Your task to perform on an android device: make emails show in primary in the gmail app Image 0: 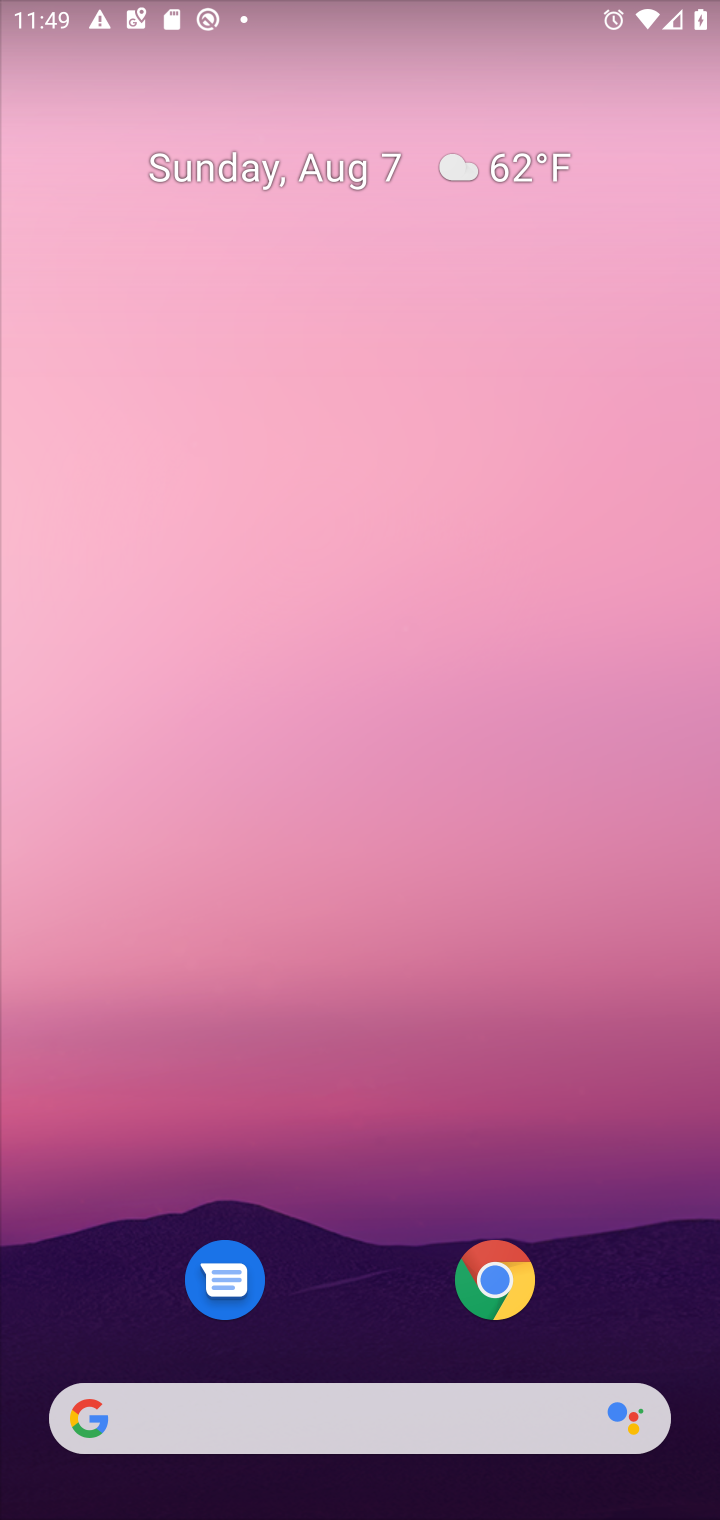
Step 0: drag from (336, 1140) to (293, 312)
Your task to perform on an android device: make emails show in primary in the gmail app Image 1: 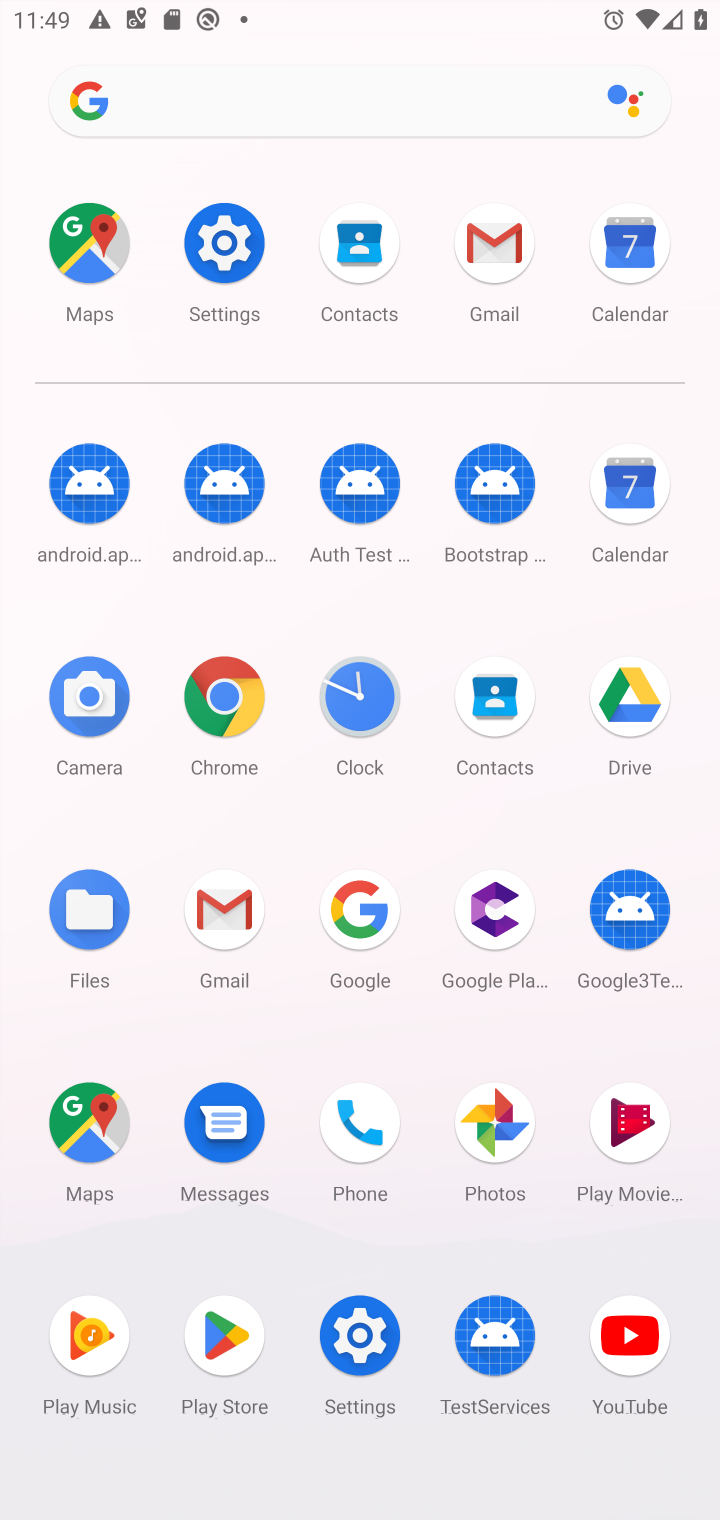
Step 1: click (224, 911)
Your task to perform on an android device: make emails show in primary in the gmail app Image 2: 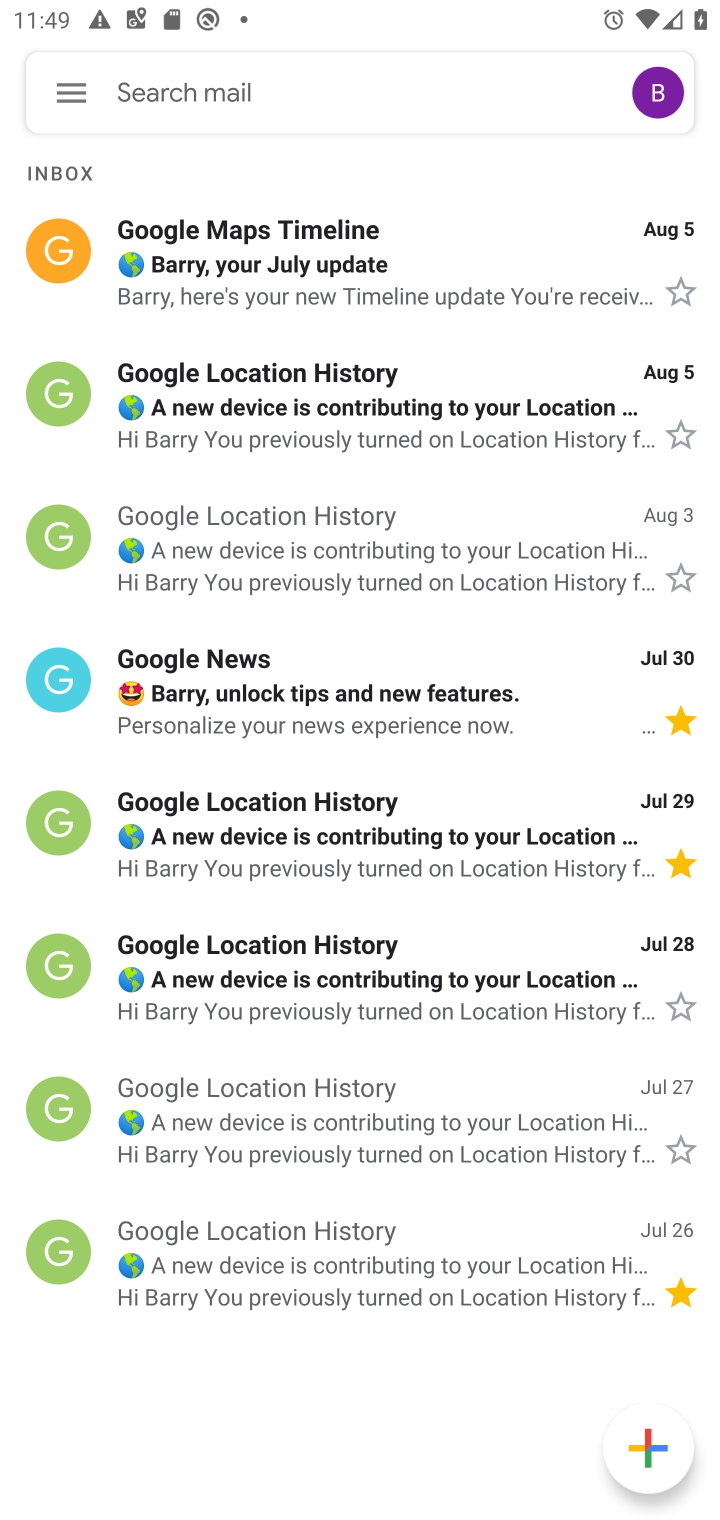
Step 2: click (77, 97)
Your task to perform on an android device: make emails show in primary in the gmail app Image 3: 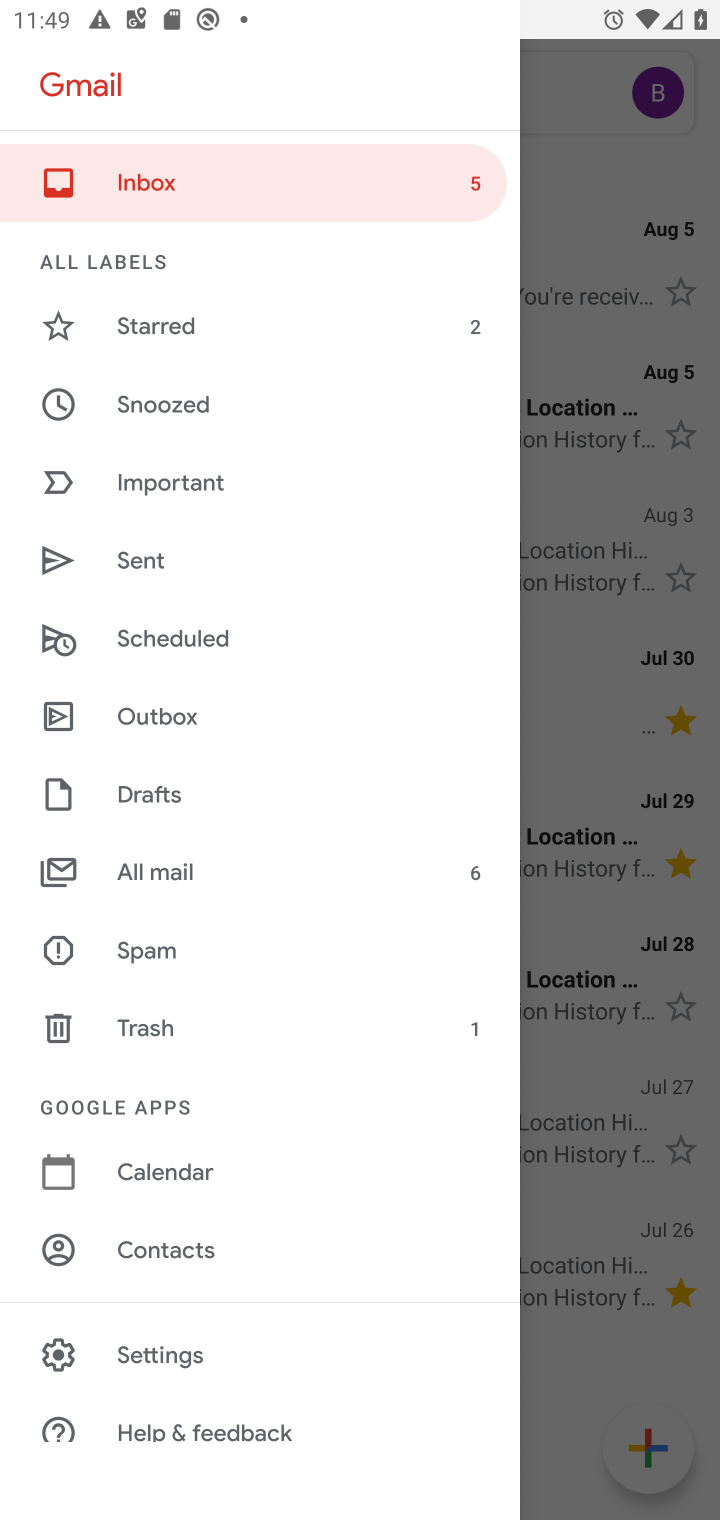
Step 3: click (156, 1354)
Your task to perform on an android device: make emails show in primary in the gmail app Image 4: 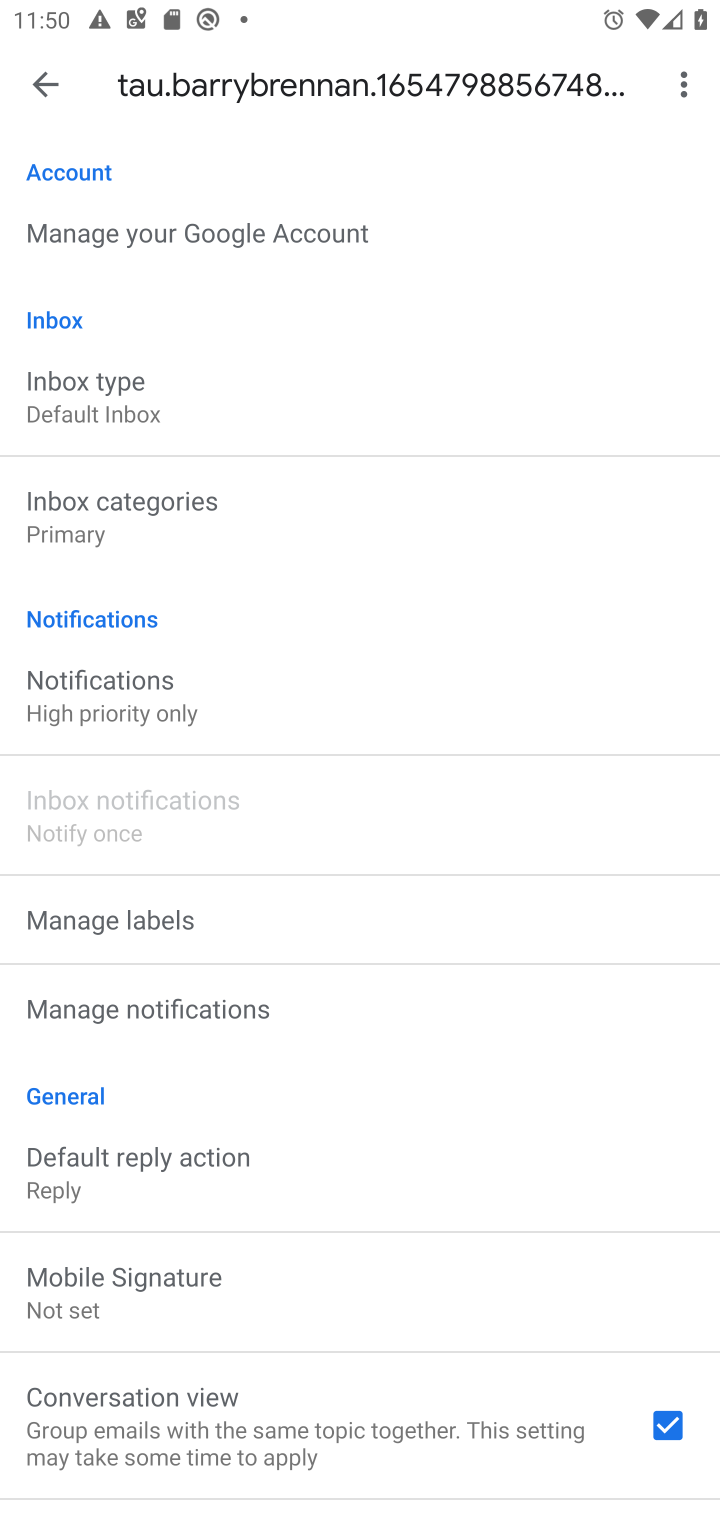
Step 4: task complete